Your task to perform on an android device: read, delete, or share a saved page in the chrome app Image 0: 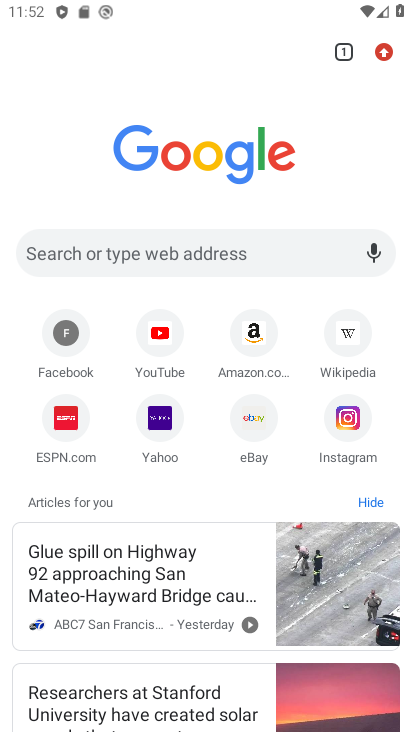
Step 0: press home button
Your task to perform on an android device: read, delete, or share a saved page in the chrome app Image 1: 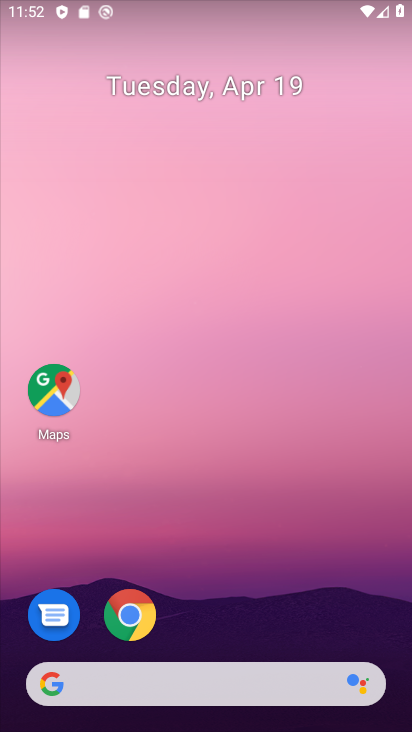
Step 1: click (130, 615)
Your task to perform on an android device: read, delete, or share a saved page in the chrome app Image 2: 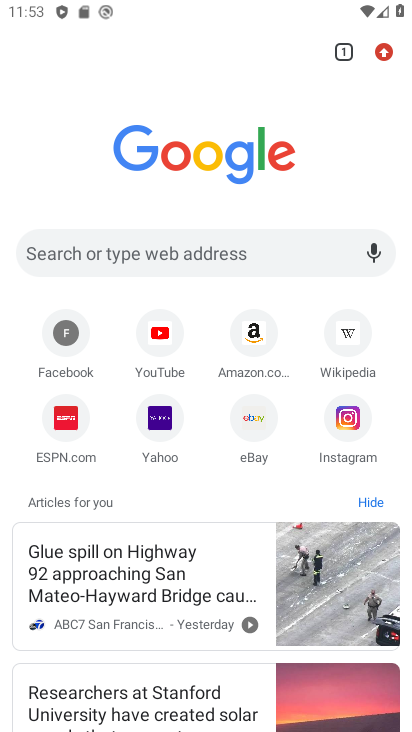
Step 2: click (387, 57)
Your task to perform on an android device: read, delete, or share a saved page in the chrome app Image 3: 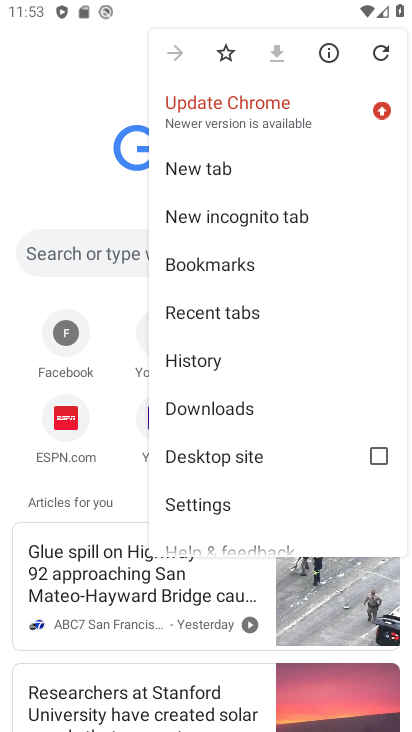
Step 3: click (221, 420)
Your task to perform on an android device: read, delete, or share a saved page in the chrome app Image 4: 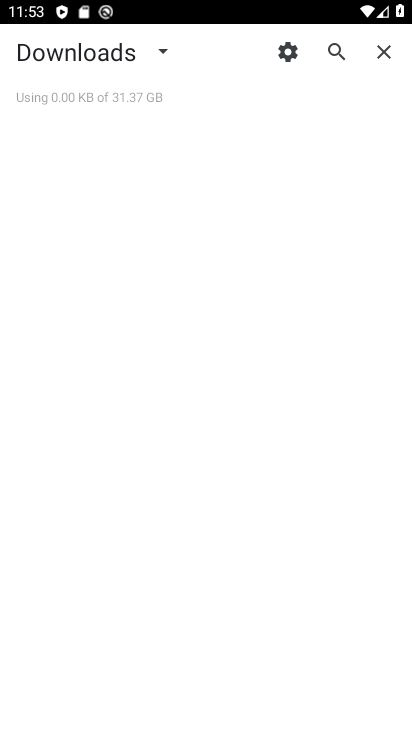
Step 4: click (165, 57)
Your task to perform on an android device: read, delete, or share a saved page in the chrome app Image 5: 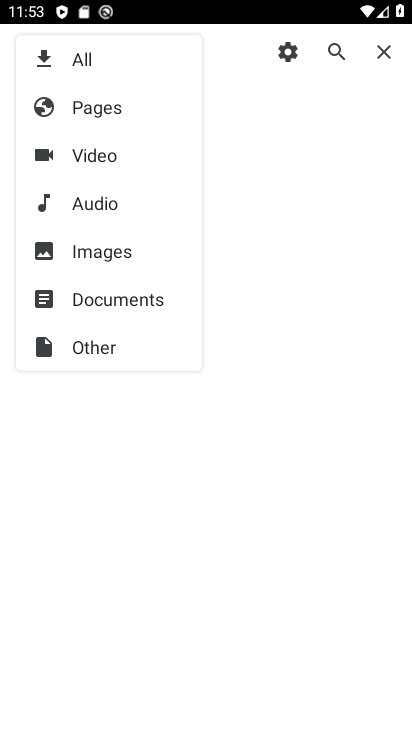
Step 5: click (99, 110)
Your task to perform on an android device: read, delete, or share a saved page in the chrome app Image 6: 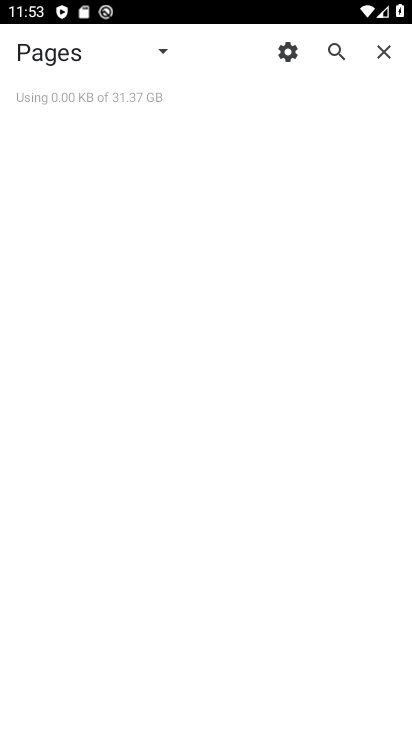
Step 6: task complete